Your task to perform on an android device: Set the phone to "Do not disturb". Image 0: 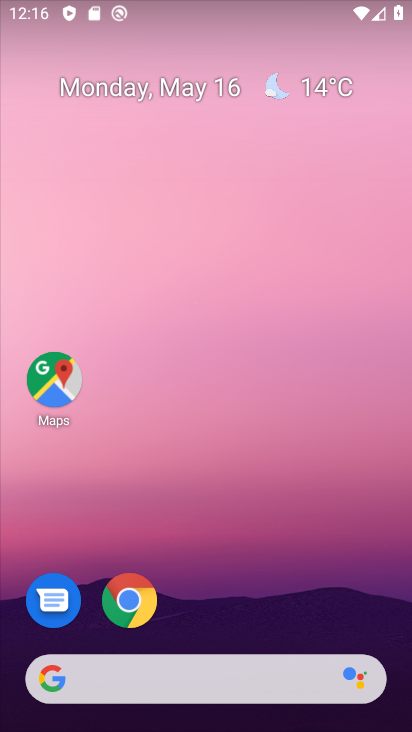
Step 0: drag from (218, 5) to (216, 577)
Your task to perform on an android device: Set the phone to "Do not disturb". Image 1: 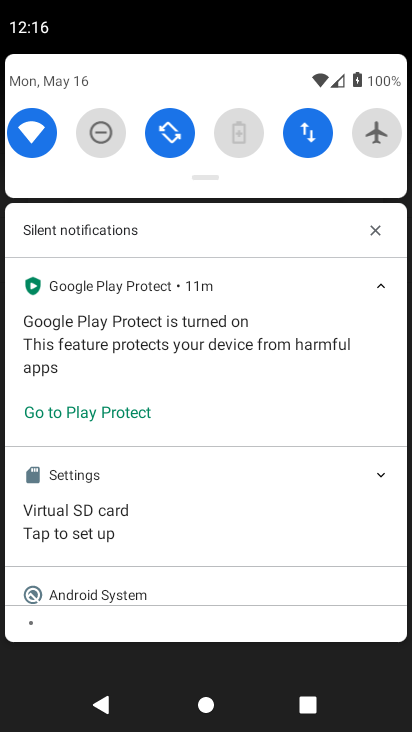
Step 1: click (93, 129)
Your task to perform on an android device: Set the phone to "Do not disturb". Image 2: 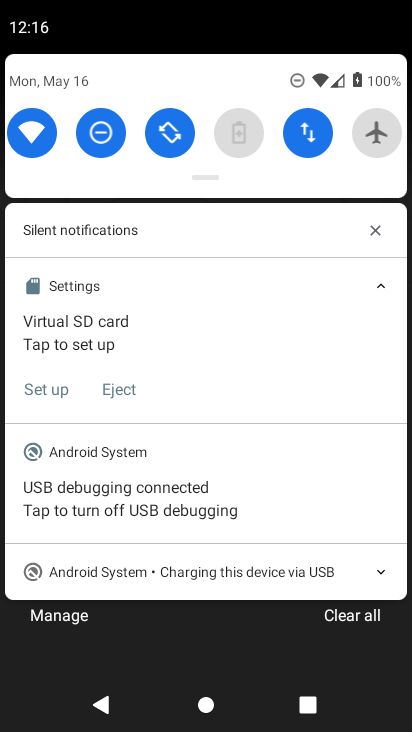
Step 2: task complete